Your task to perform on an android device: Go to settings Image 0: 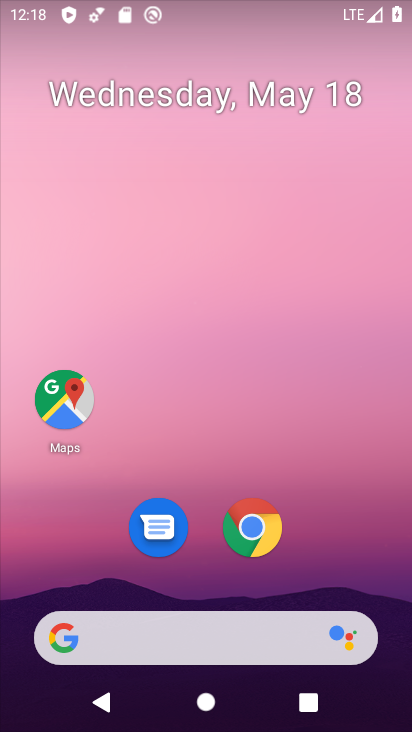
Step 0: drag from (312, 552) to (258, 83)
Your task to perform on an android device: Go to settings Image 1: 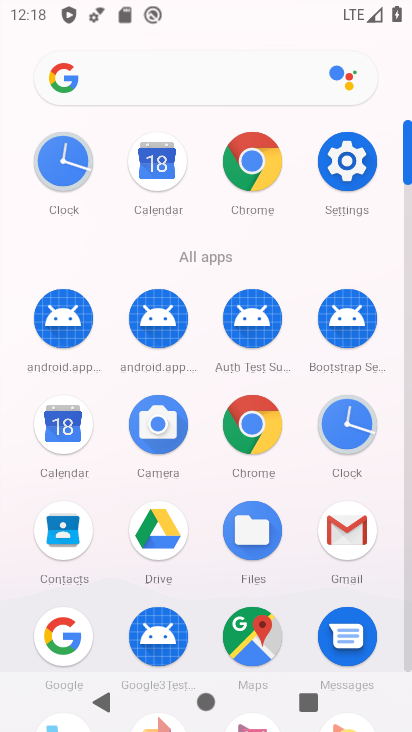
Step 1: click (354, 193)
Your task to perform on an android device: Go to settings Image 2: 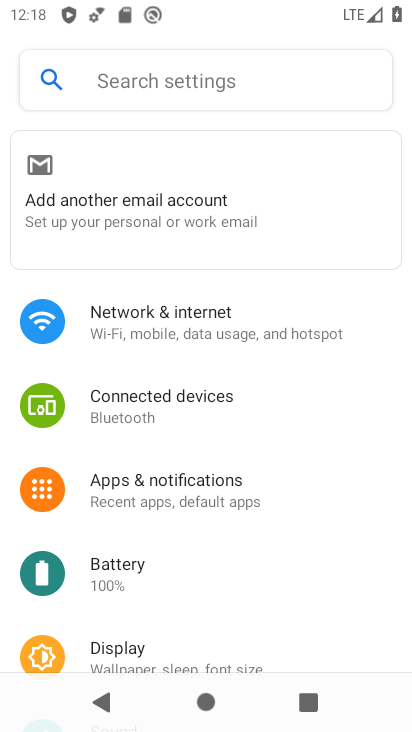
Step 2: task complete